Your task to perform on an android device: open app "Duolingo: language lessons" (install if not already installed) and enter user name: "omens@gmail.com" and password: "casks" Image 0: 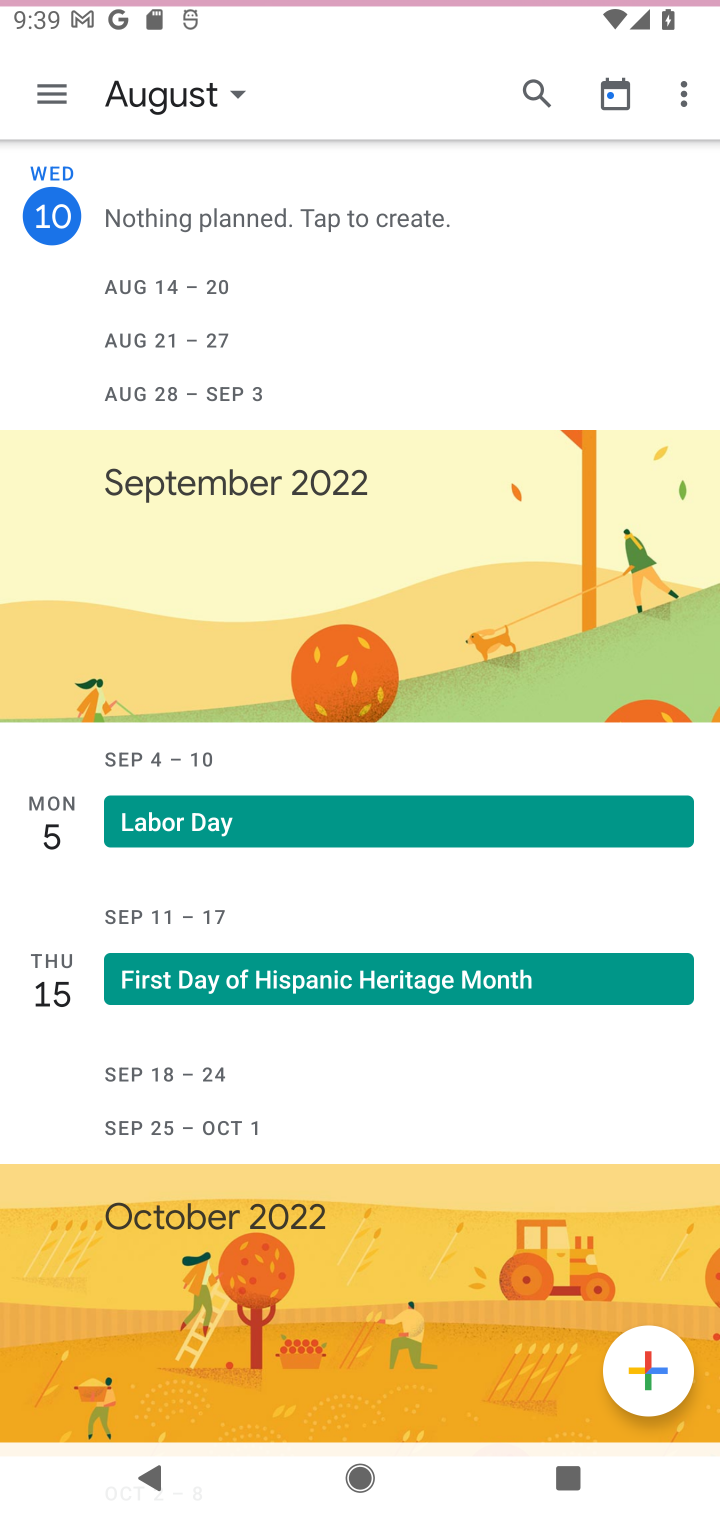
Step 0: press home button
Your task to perform on an android device: open app "Duolingo: language lessons" (install if not already installed) and enter user name: "omens@gmail.com" and password: "casks" Image 1: 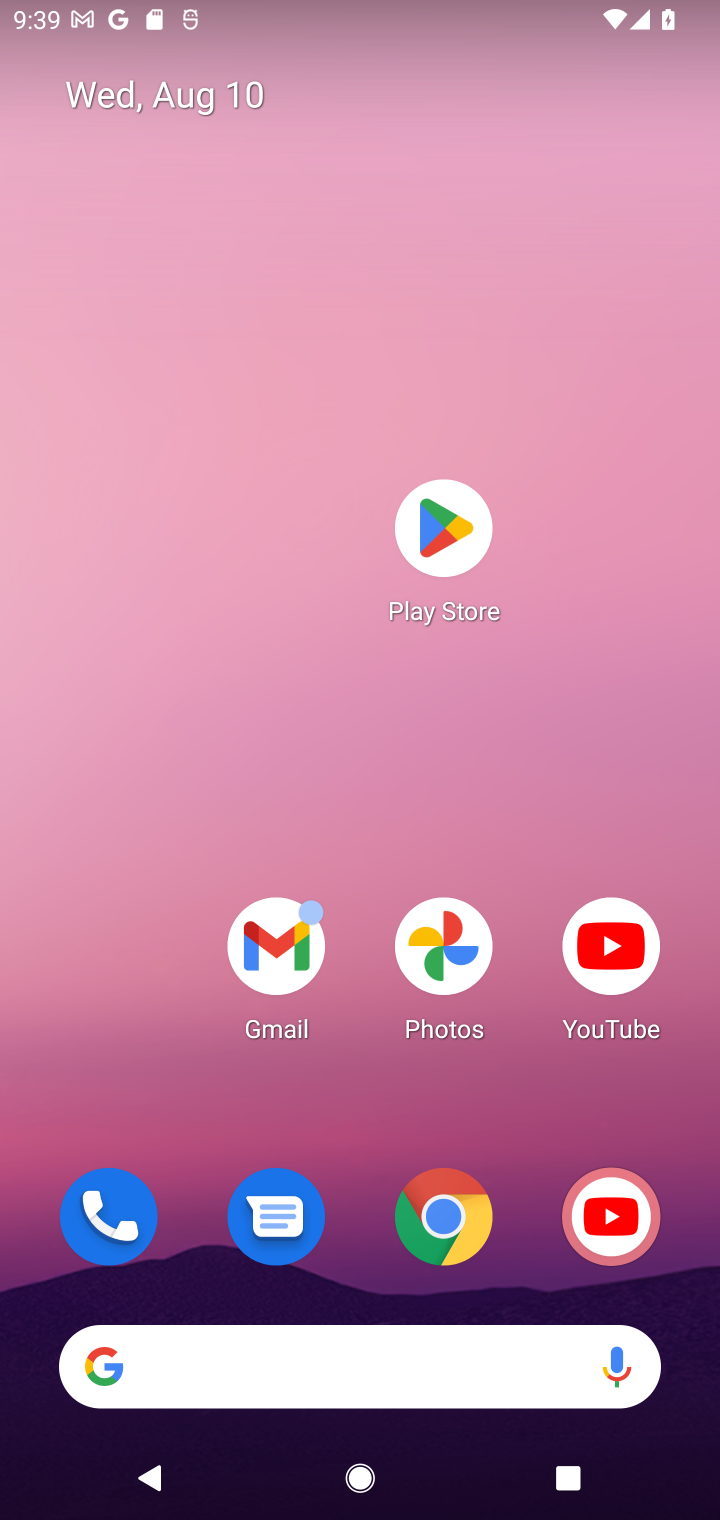
Step 1: click (458, 536)
Your task to perform on an android device: open app "Duolingo: language lessons" (install if not already installed) and enter user name: "omens@gmail.com" and password: "casks" Image 2: 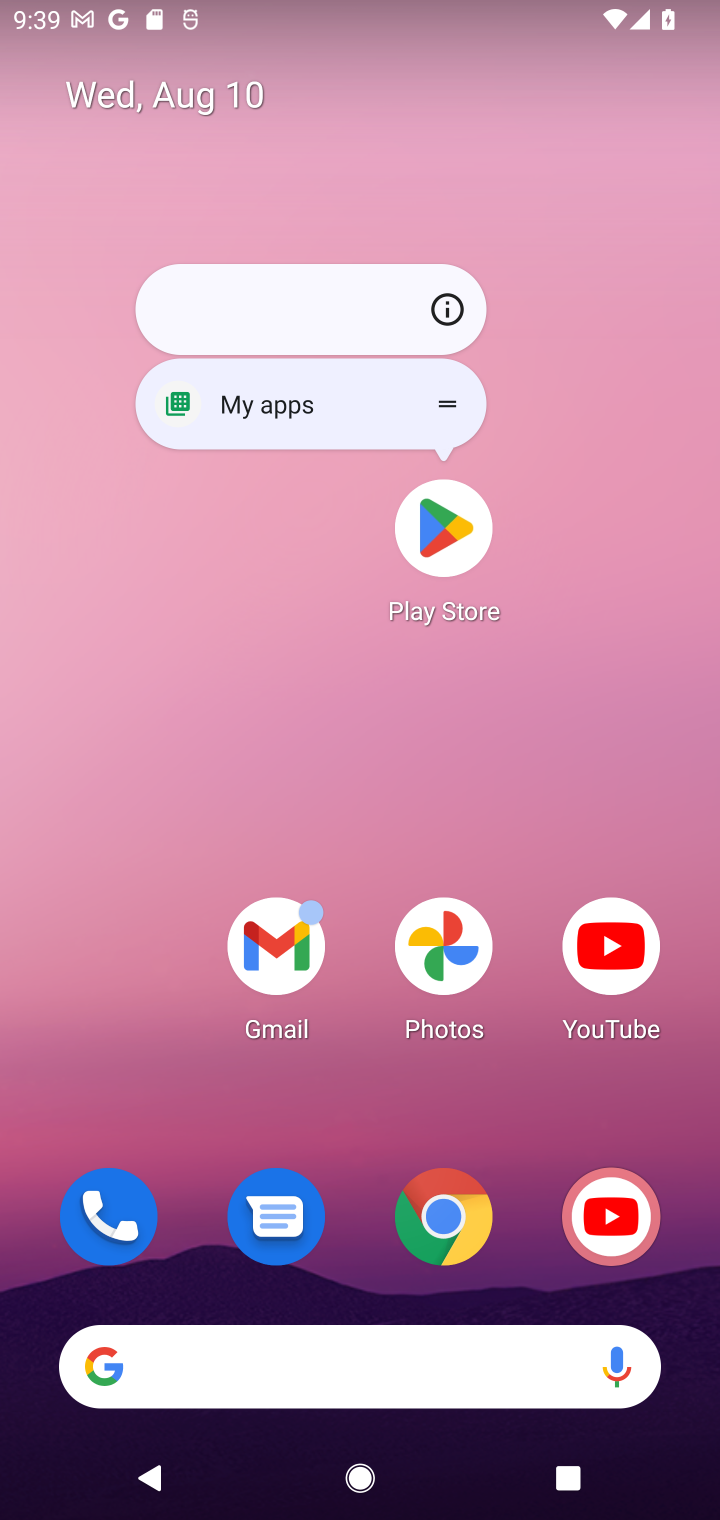
Step 2: click (458, 539)
Your task to perform on an android device: open app "Duolingo: language lessons" (install if not already installed) and enter user name: "omens@gmail.com" and password: "casks" Image 3: 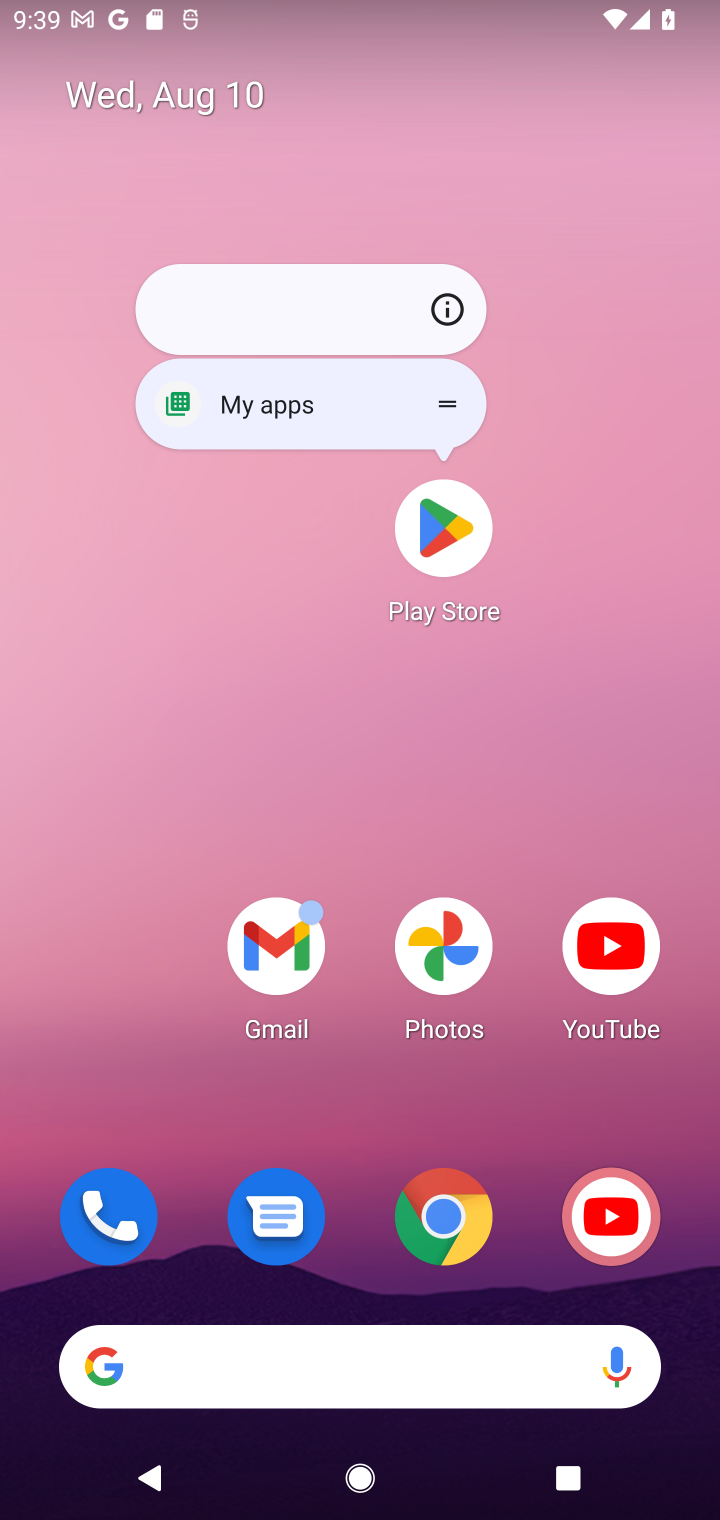
Step 3: click (449, 532)
Your task to perform on an android device: open app "Duolingo: language lessons" (install if not already installed) and enter user name: "omens@gmail.com" and password: "casks" Image 4: 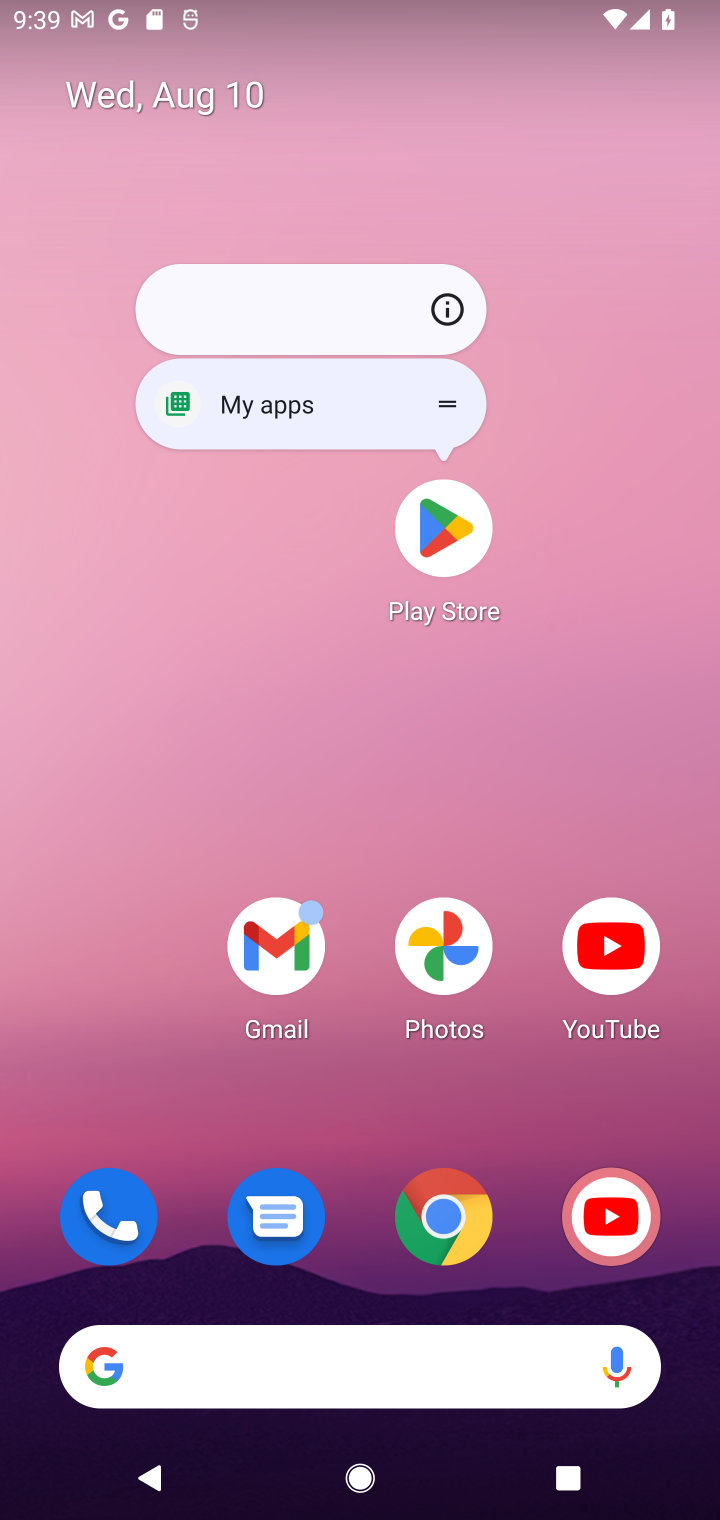
Step 4: click (449, 537)
Your task to perform on an android device: open app "Duolingo: language lessons" (install if not already installed) and enter user name: "omens@gmail.com" and password: "casks" Image 5: 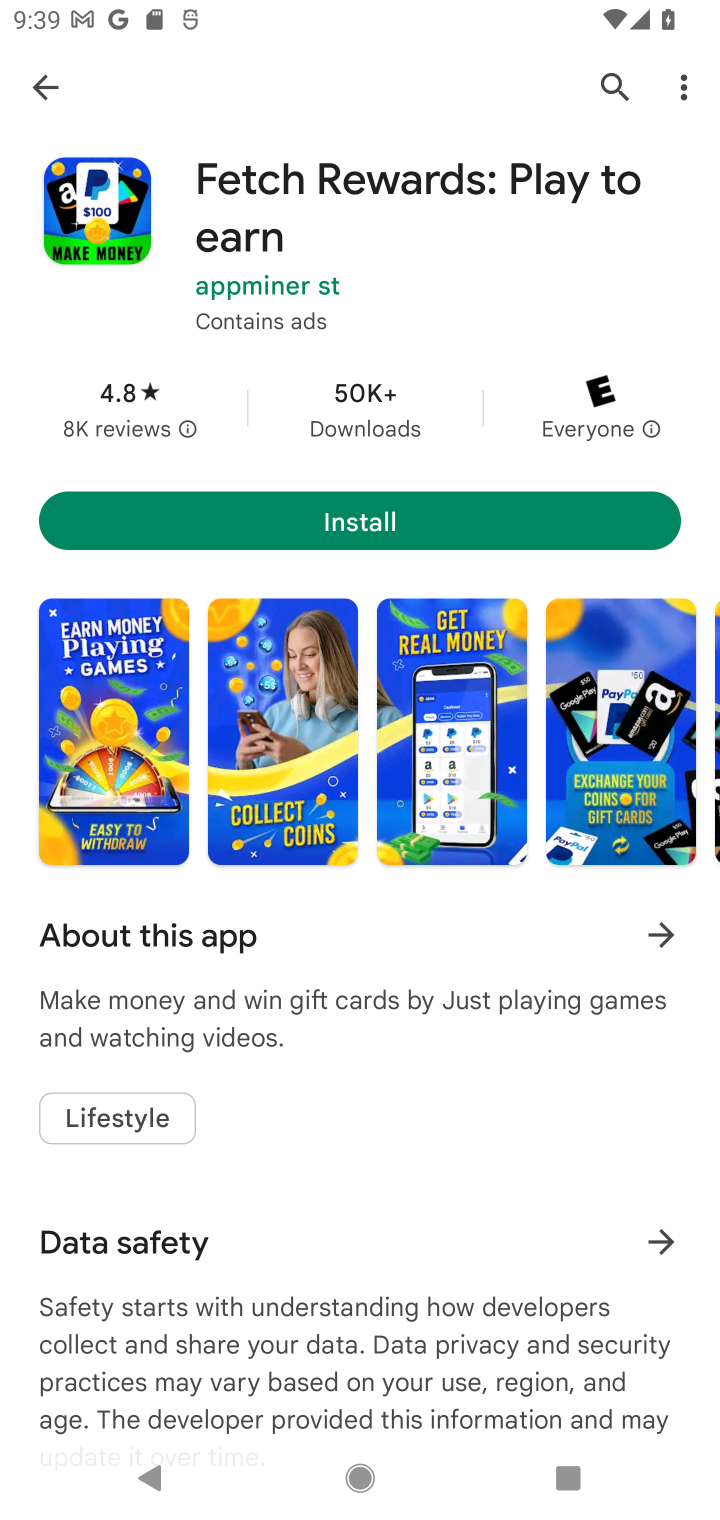
Step 5: click (601, 78)
Your task to perform on an android device: open app "Duolingo: language lessons" (install if not already installed) and enter user name: "omens@gmail.com" and password: "casks" Image 6: 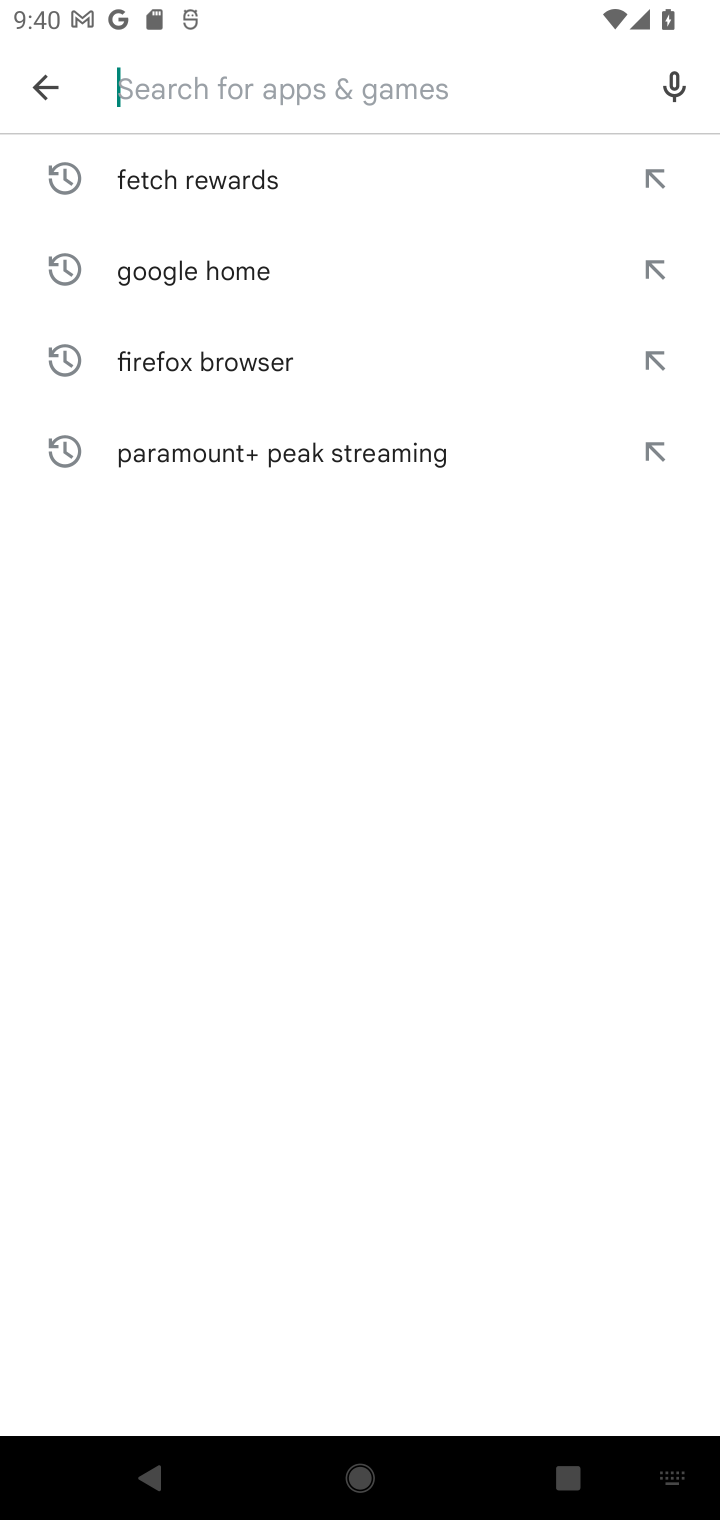
Step 6: type "Duolingo: language lessons"
Your task to perform on an android device: open app "Duolingo: language lessons" (install if not already installed) and enter user name: "omens@gmail.com" and password: "casks" Image 7: 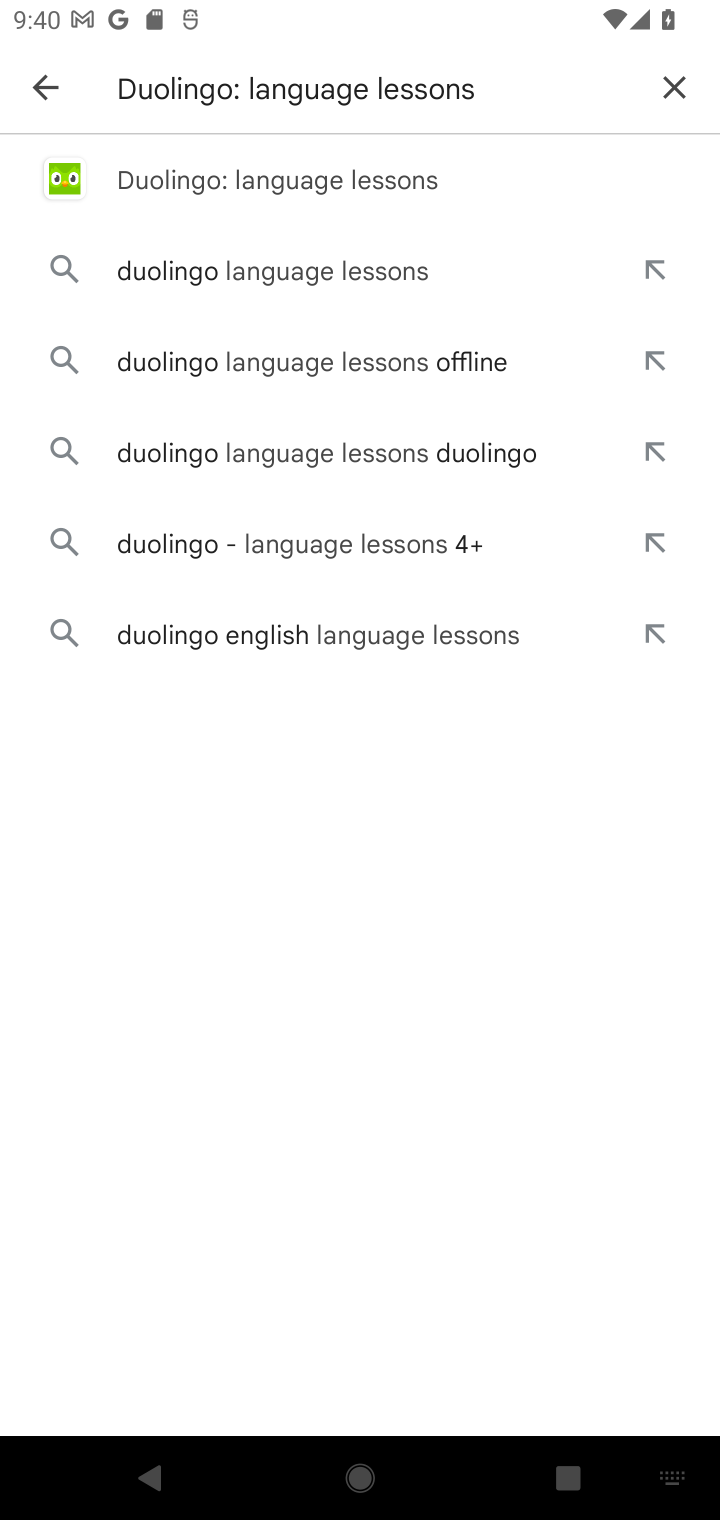
Step 7: click (274, 180)
Your task to perform on an android device: open app "Duolingo: language lessons" (install if not already installed) and enter user name: "omens@gmail.com" and password: "casks" Image 8: 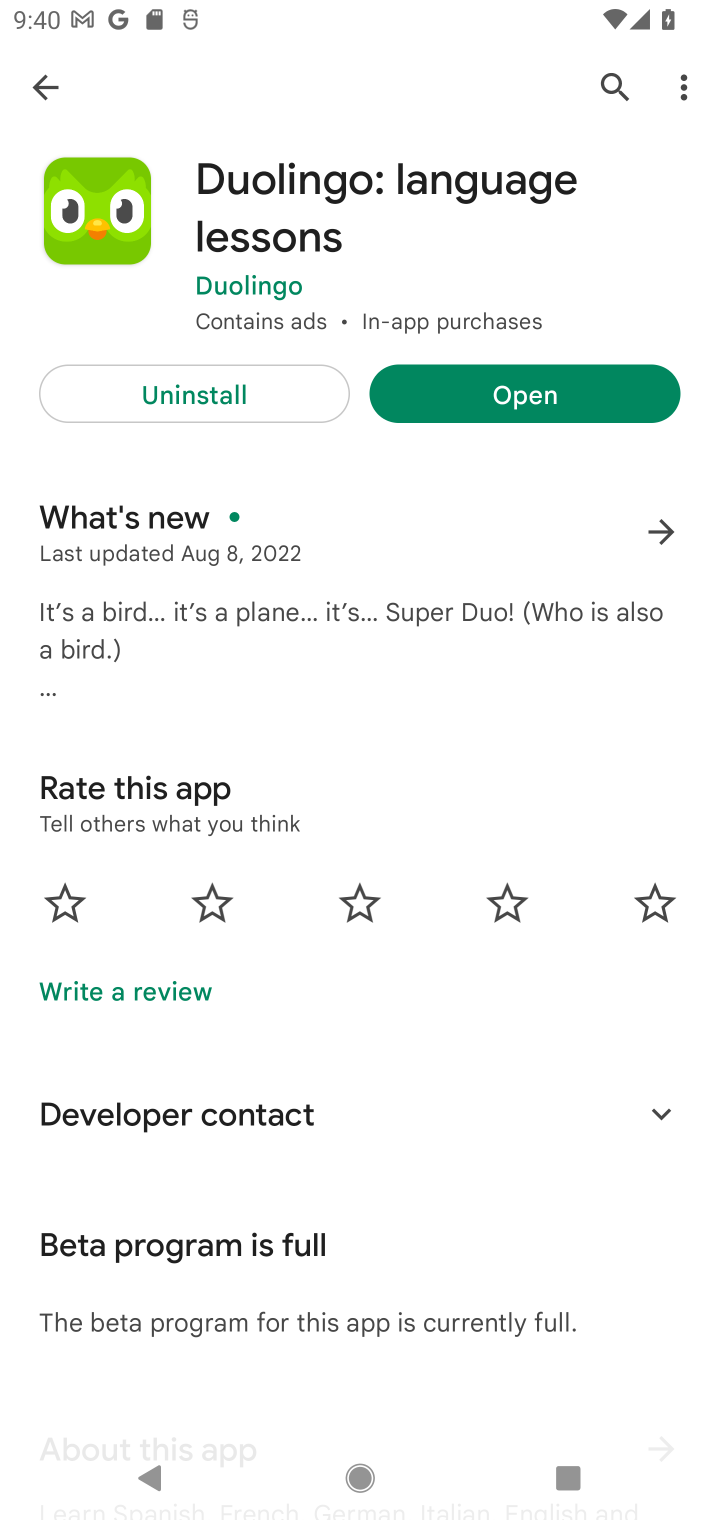
Step 8: click (582, 398)
Your task to perform on an android device: open app "Duolingo: language lessons" (install if not already installed) and enter user name: "omens@gmail.com" and password: "casks" Image 9: 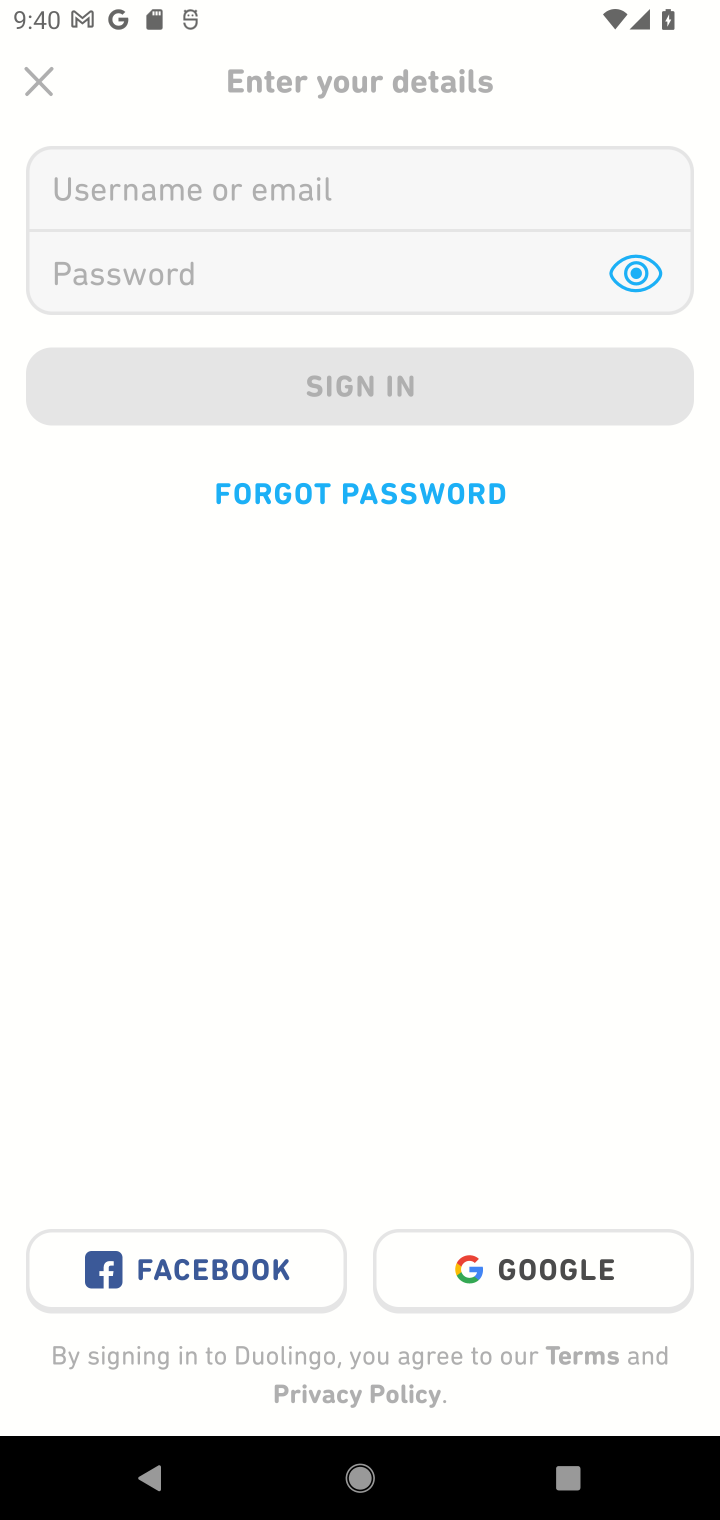
Step 9: click (267, 186)
Your task to perform on an android device: open app "Duolingo: language lessons" (install if not already installed) and enter user name: "omens@gmail.com" and password: "casks" Image 10: 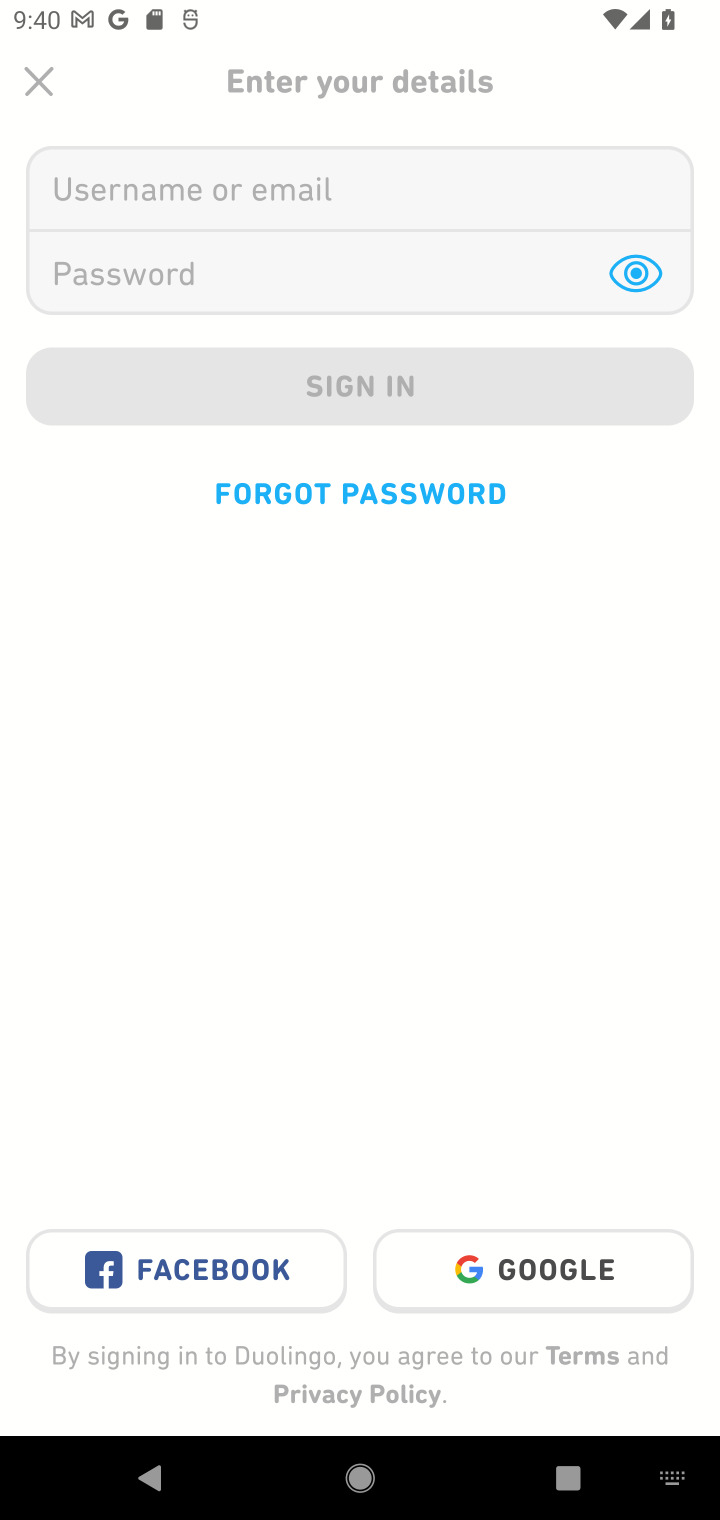
Step 10: type "omens@gmail.com"
Your task to perform on an android device: open app "Duolingo: language lessons" (install if not already installed) and enter user name: "omens@gmail.com" and password: "casks" Image 11: 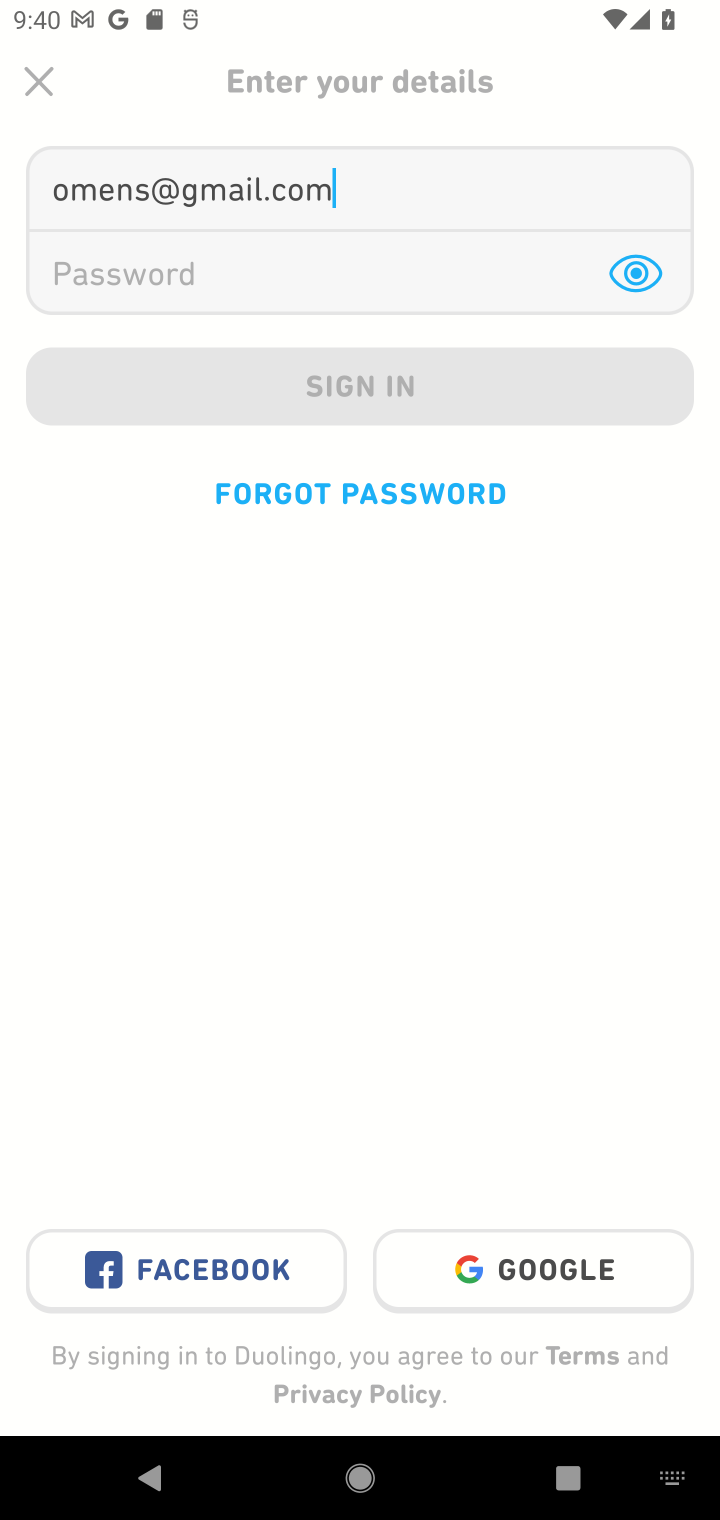
Step 11: click (204, 276)
Your task to perform on an android device: open app "Duolingo: language lessons" (install if not already installed) and enter user name: "omens@gmail.com" and password: "casks" Image 12: 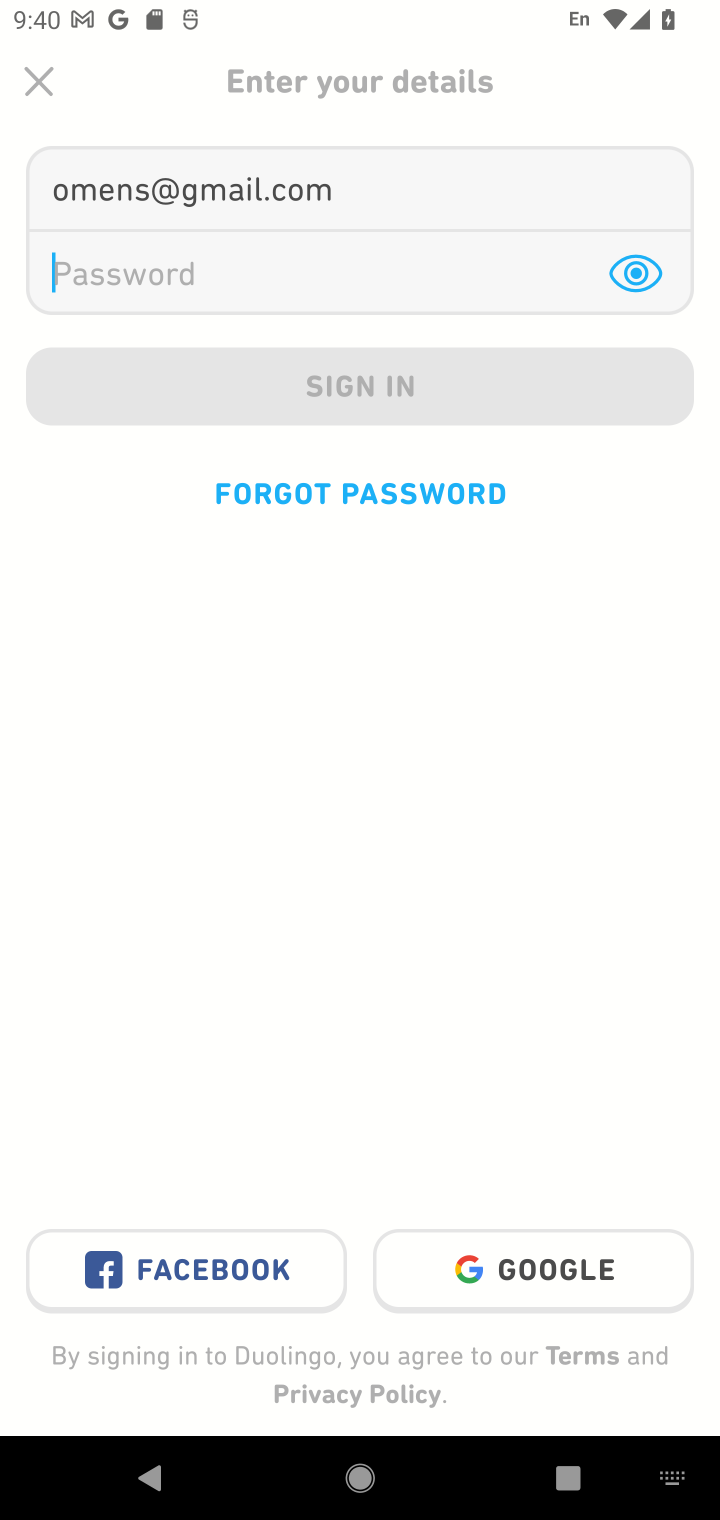
Step 12: type "casks"
Your task to perform on an android device: open app "Duolingo: language lessons" (install if not already installed) and enter user name: "omens@gmail.com" and password: "casks" Image 13: 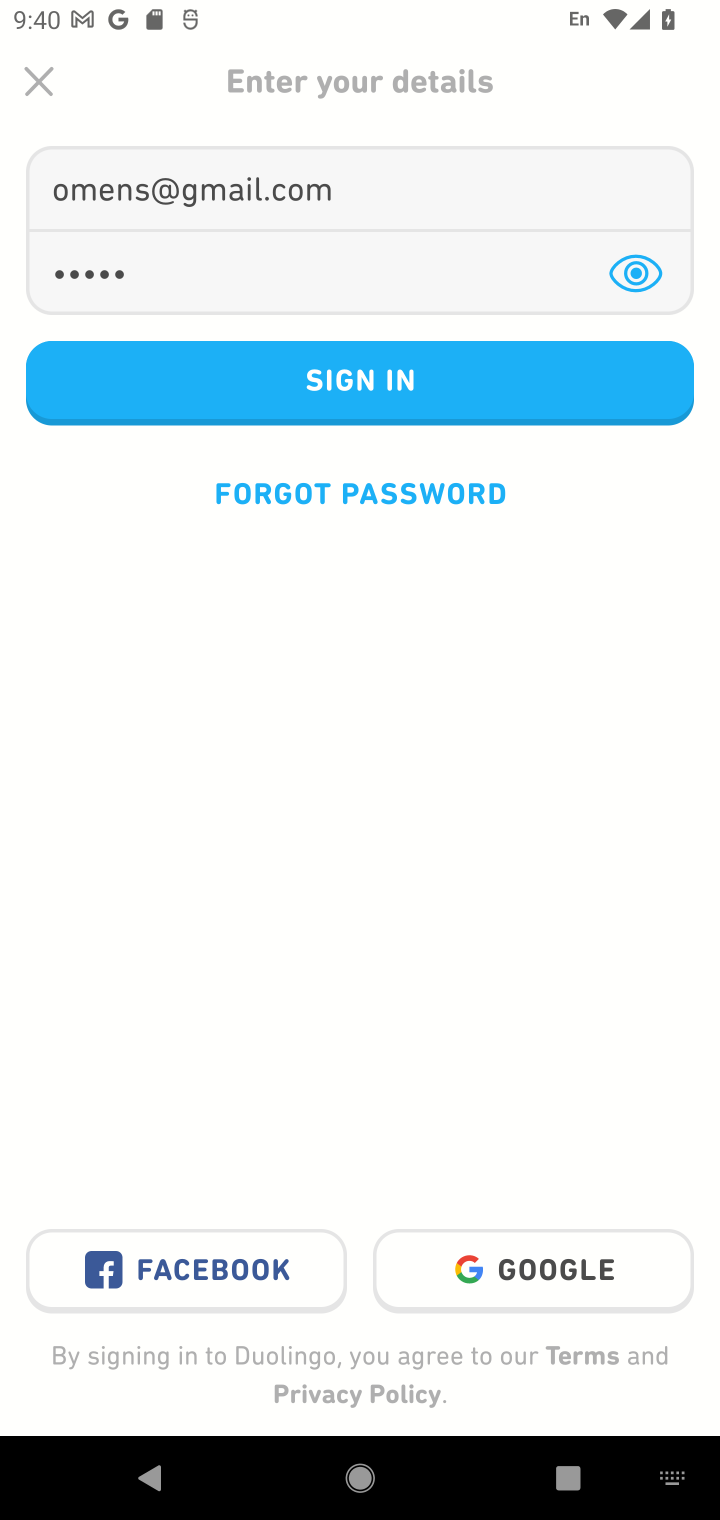
Step 13: click (456, 392)
Your task to perform on an android device: open app "Duolingo: language lessons" (install if not already installed) and enter user name: "omens@gmail.com" and password: "casks" Image 14: 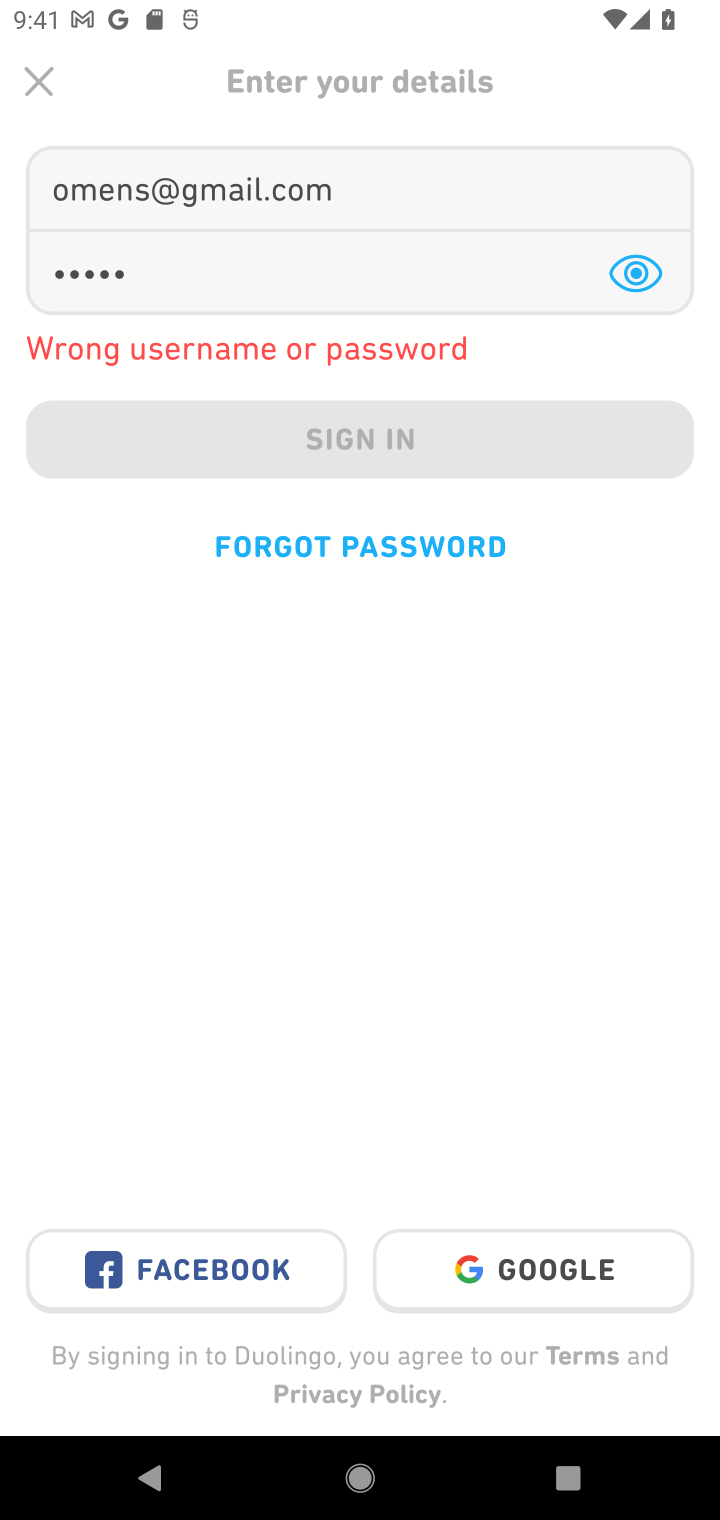
Step 14: task complete